Your task to perform on an android device: add a contact in the contacts app Image 0: 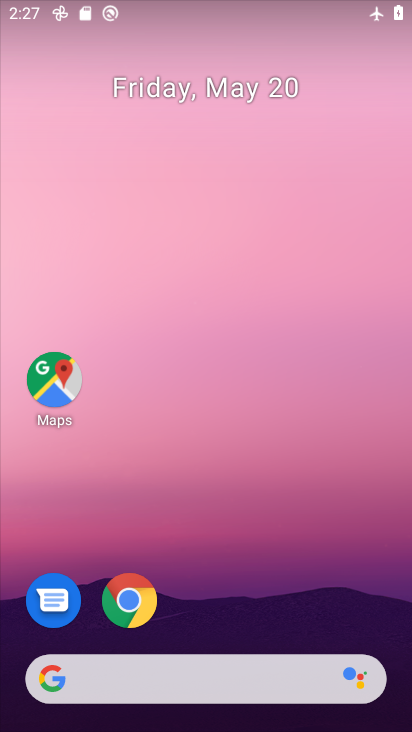
Step 0: drag from (308, 456) to (193, 22)
Your task to perform on an android device: add a contact in the contacts app Image 1: 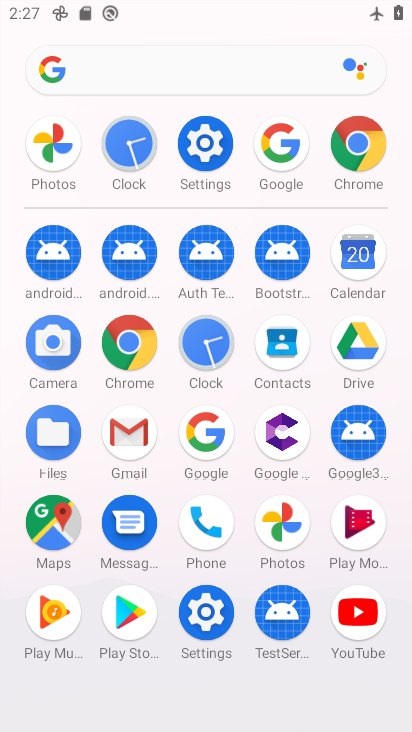
Step 1: click (273, 334)
Your task to perform on an android device: add a contact in the contacts app Image 2: 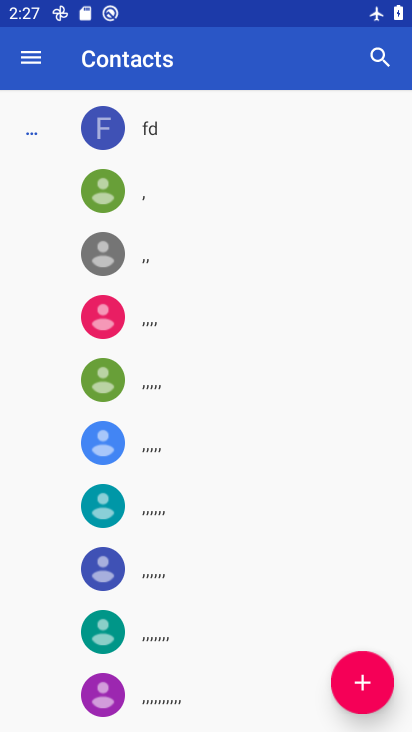
Step 2: click (364, 677)
Your task to perform on an android device: add a contact in the contacts app Image 3: 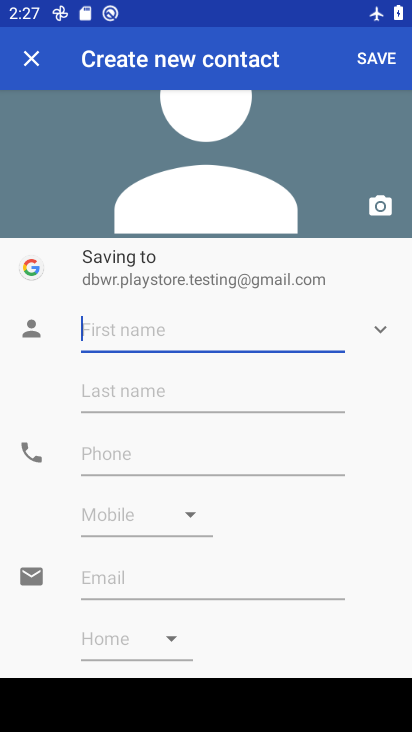
Step 3: type "ffgyfg"
Your task to perform on an android device: add a contact in the contacts app Image 4: 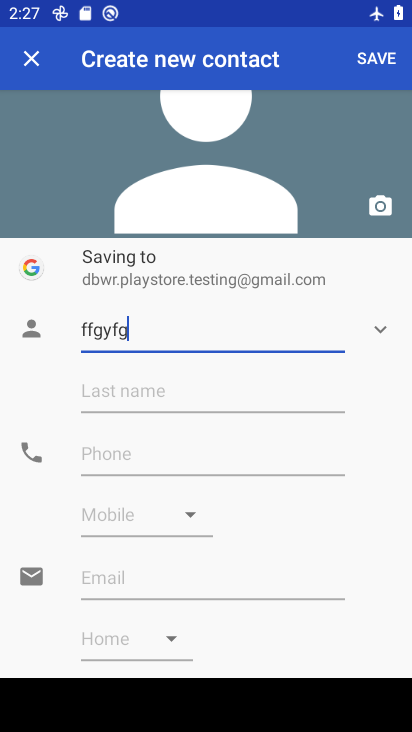
Step 4: click (217, 402)
Your task to perform on an android device: add a contact in the contacts app Image 5: 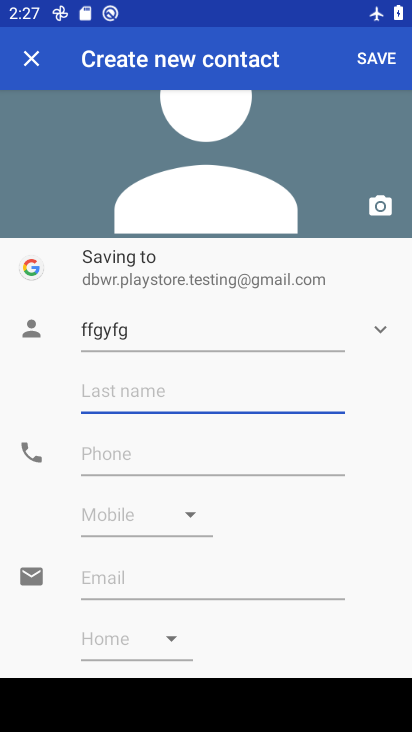
Step 5: type "fytfh"
Your task to perform on an android device: add a contact in the contacts app Image 6: 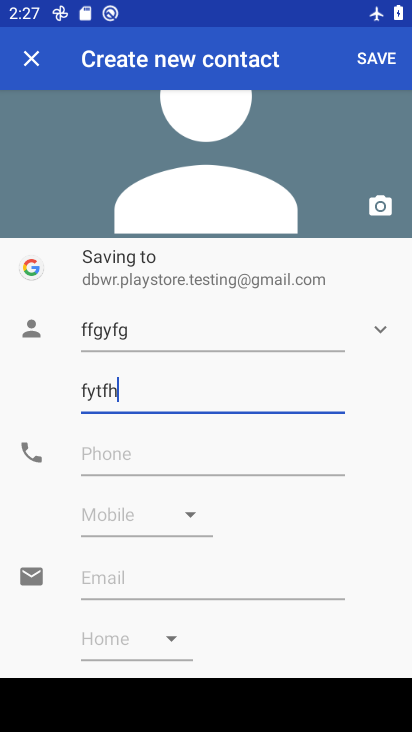
Step 6: type ""
Your task to perform on an android device: add a contact in the contacts app Image 7: 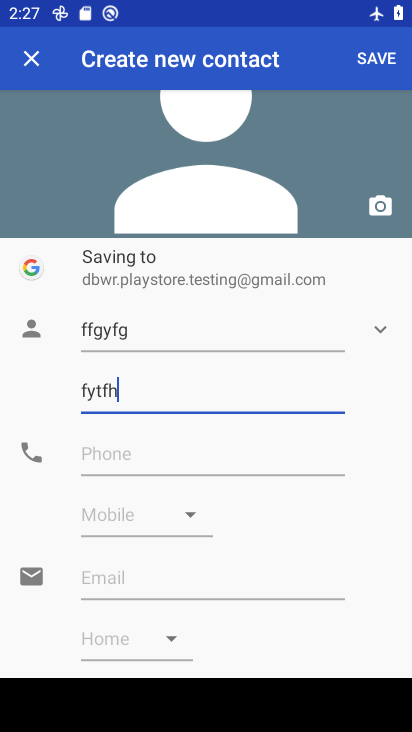
Step 7: click (253, 451)
Your task to perform on an android device: add a contact in the contacts app Image 8: 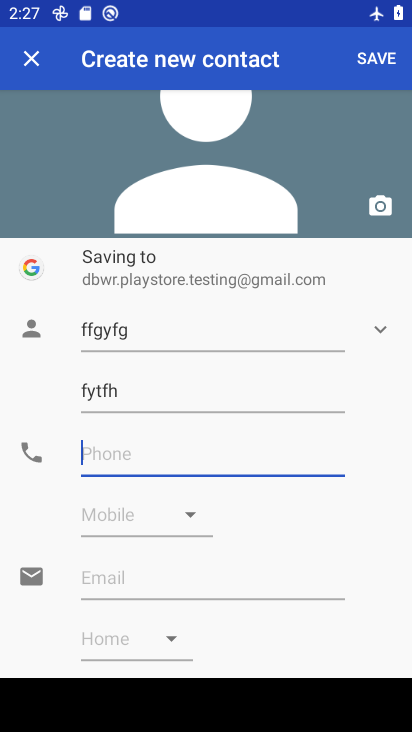
Step 8: type "5675756"
Your task to perform on an android device: add a contact in the contacts app Image 9: 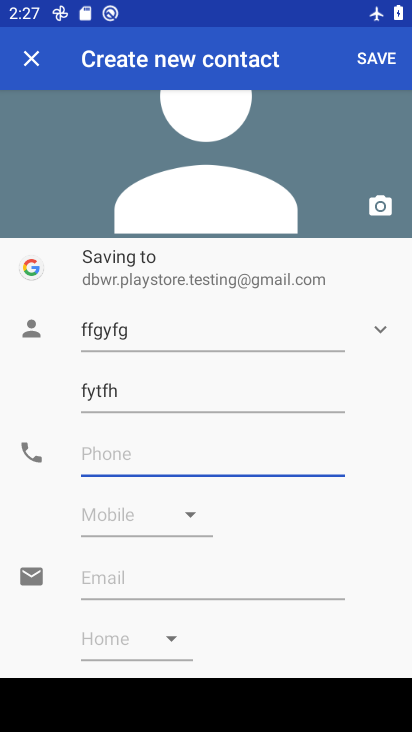
Step 9: click (388, 46)
Your task to perform on an android device: add a contact in the contacts app Image 10: 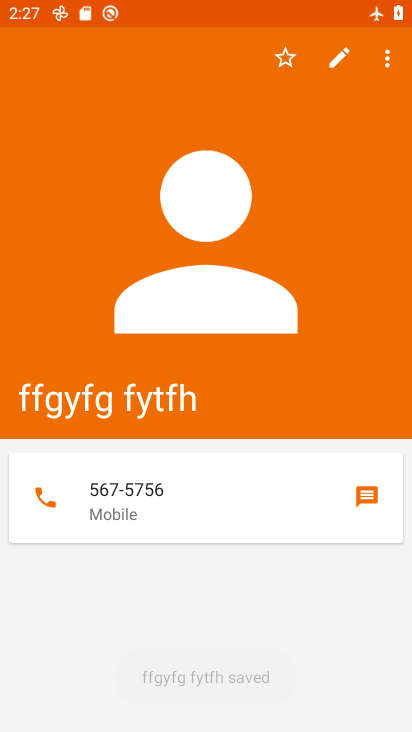
Step 10: task complete